Your task to perform on an android device: Open maps Image 0: 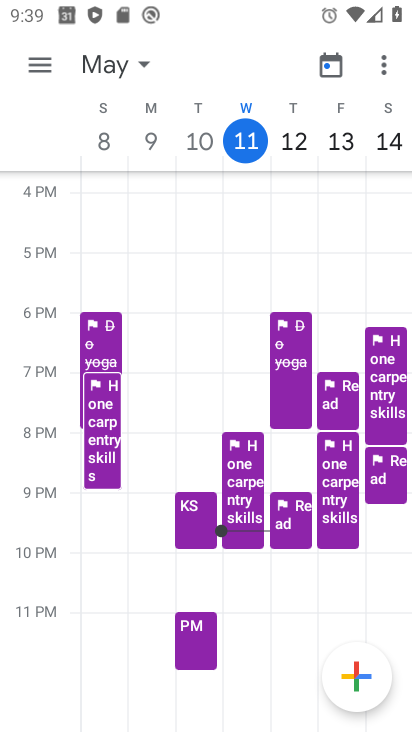
Step 0: press home button
Your task to perform on an android device: Open maps Image 1: 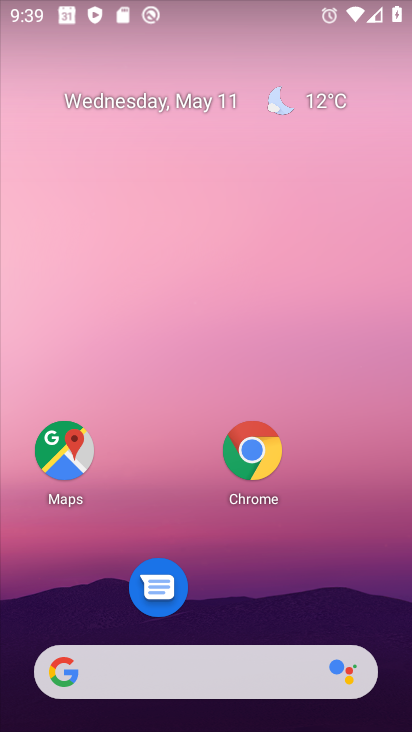
Step 1: click (53, 449)
Your task to perform on an android device: Open maps Image 2: 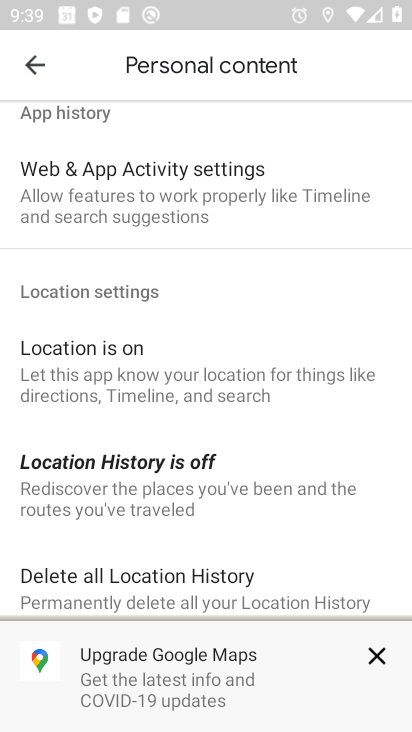
Step 2: click (23, 46)
Your task to perform on an android device: Open maps Image 3: 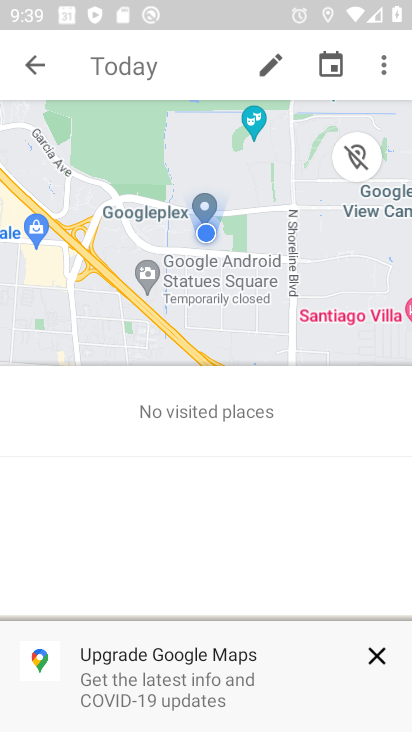
Step 3: task complete